Your task to perform on an android device: open sync settings in chrome Image 0: 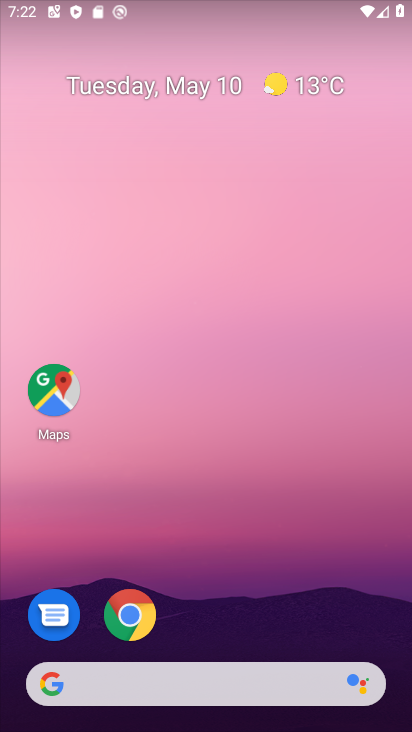
Step 0: drag from (267, 598) to (331, 27)
Your task to perform on an android device: open sync settings in chrome Image 1: 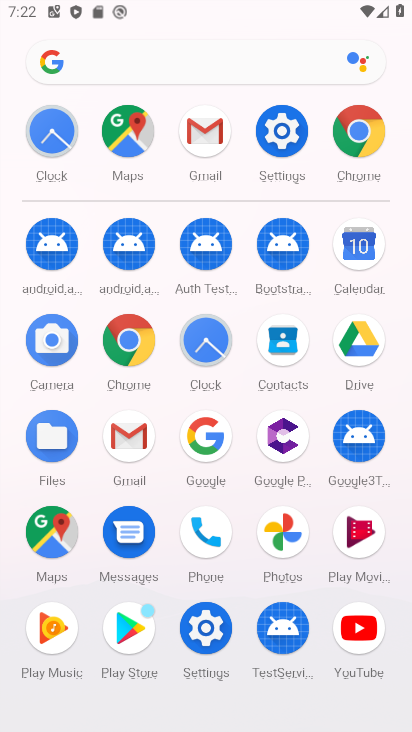
Step 1: click (362, 156)
Your task to perform on an android device: open sync settings in chrome Image 2: 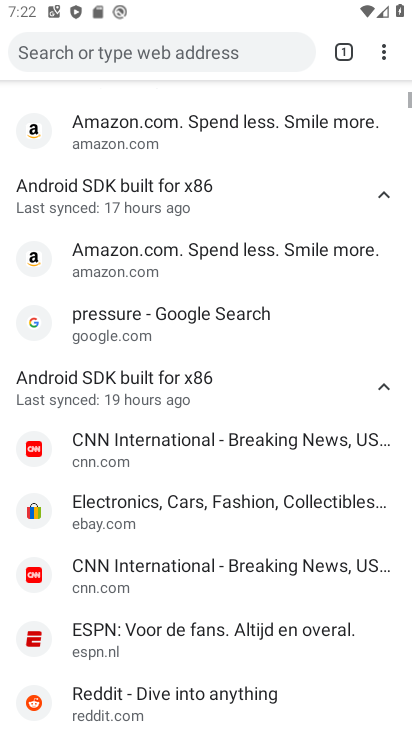
Step 2: drag from (374, 52) to (219, 456)
Your task to perform on an android device: open sync settings in chrome Image 3: 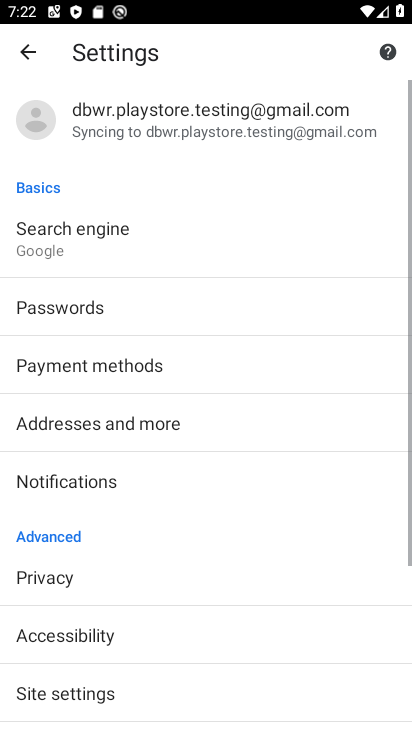
Step 3: drag from (192, 596) to (223, 275)
Your task to perform on an android device: open sync settings in chrome Image 4: 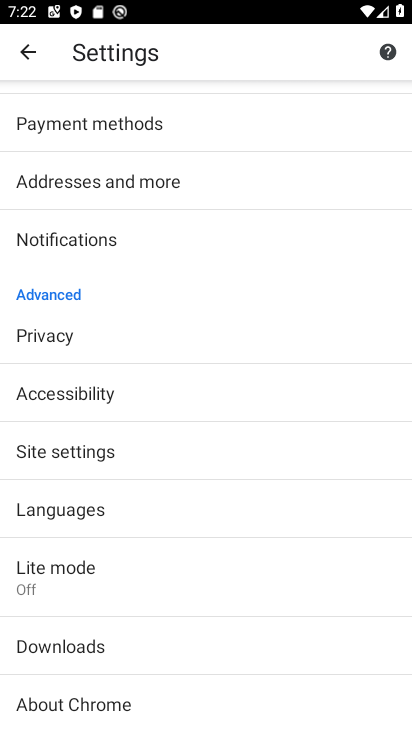
Step 4: click (82, 462)
Your task to perform on an android device: open sync settings in chrome Image 5: 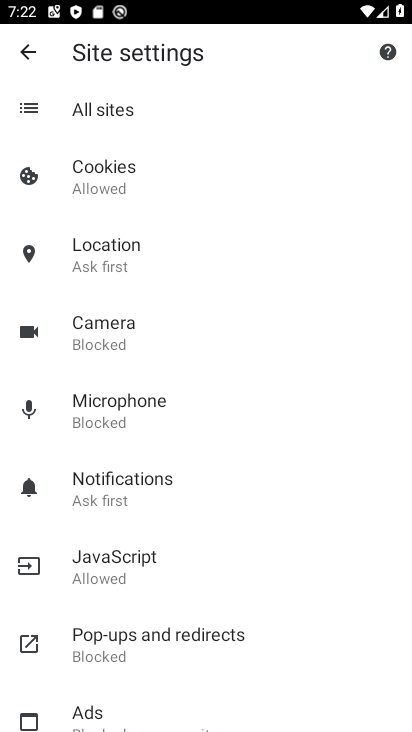
Step 5: drag from (199, 526) to (222, 207)
Your task to perform on an android device: open sync settings in chrome Image 6: 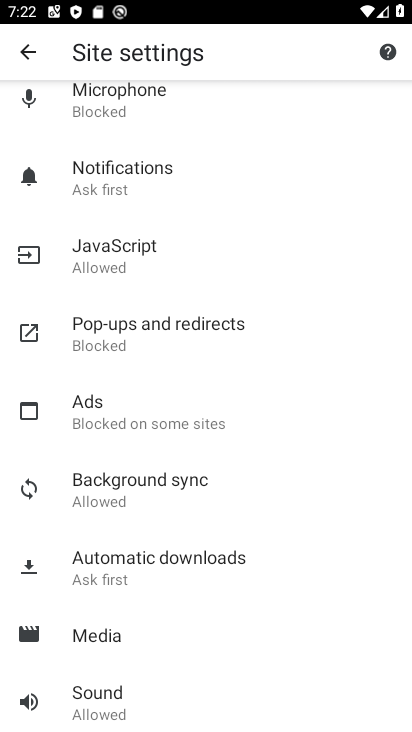
Step 6: click (137, 504)
Your task to perform on an android device: open sync settings in chrome Image 7: 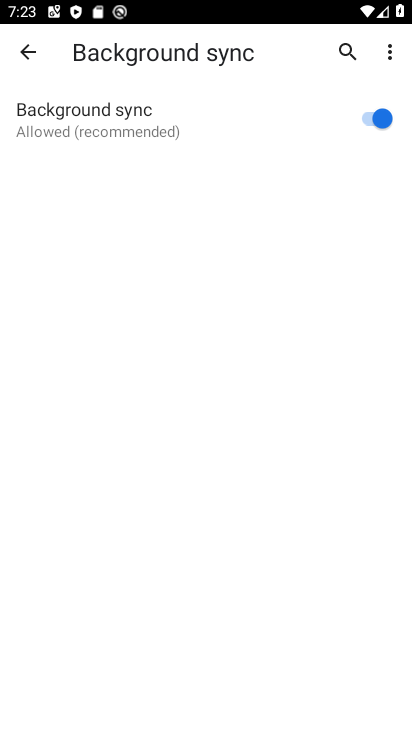
Step 7: task complete